Your task to perform on an android device: Go to CNN.com Image 0: 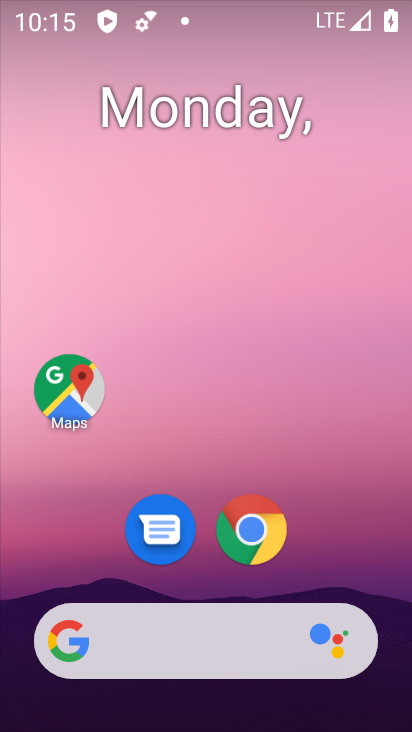
Step 0: drag from (213, 442) to (207, 112)
Your task to perform on an android device: Go to CNN.com Image 1: 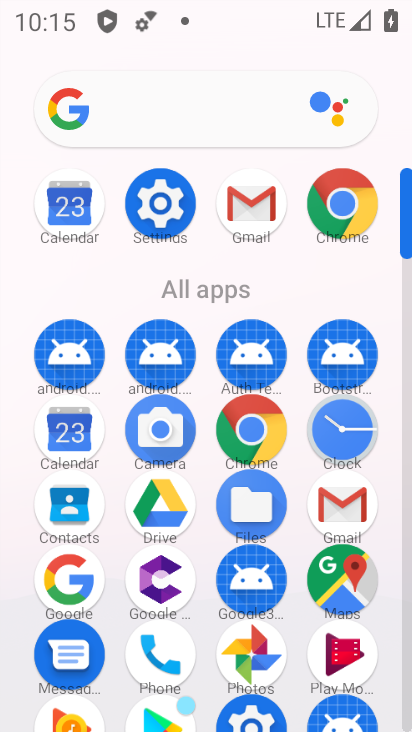
Step 1: click (279, 533)
Your task to perform on an android device: Go to CNN.com Image 2: 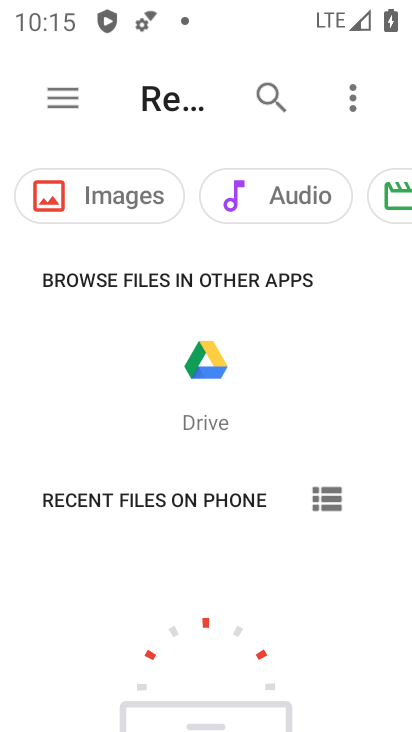
Step 2: press home button
Your task to perform on an android device: Go to CNN.com Image 3: 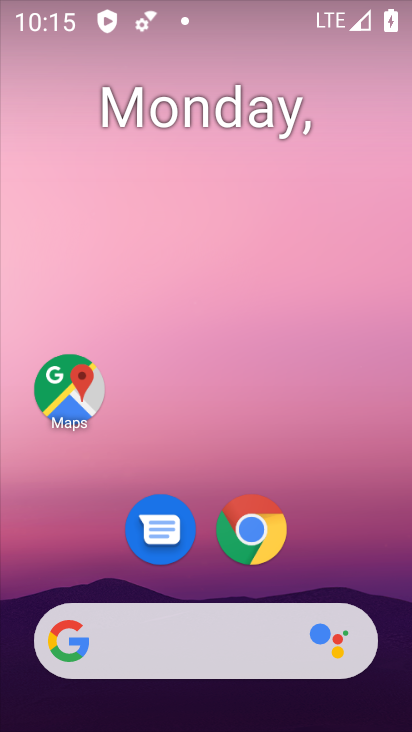
Step 3: drag from (198, 584) to (183, 203)
Your task to perform on an android device: Go to CNN.com Image 4: 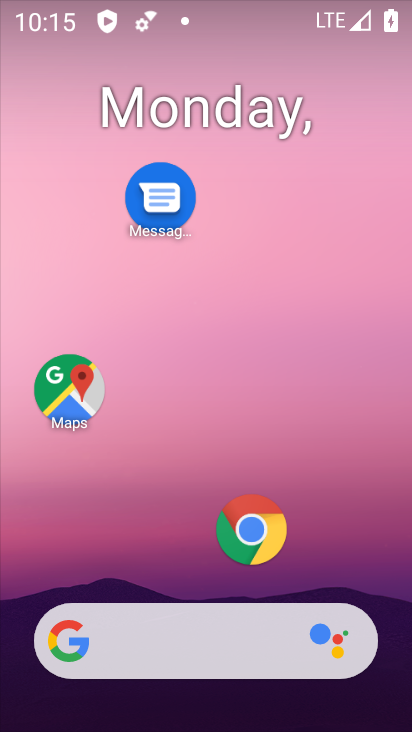
Step 4: drag from (172, 542) to (215, 150)
Your task to perform on an android device: Go to CNN.com Image 5: 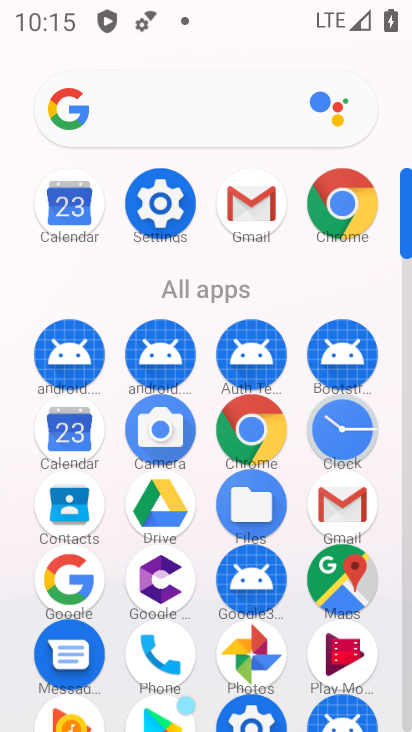
Step 5: click (271, 442)
Your task to perform on an android device: Go to CNN.com Image 6: 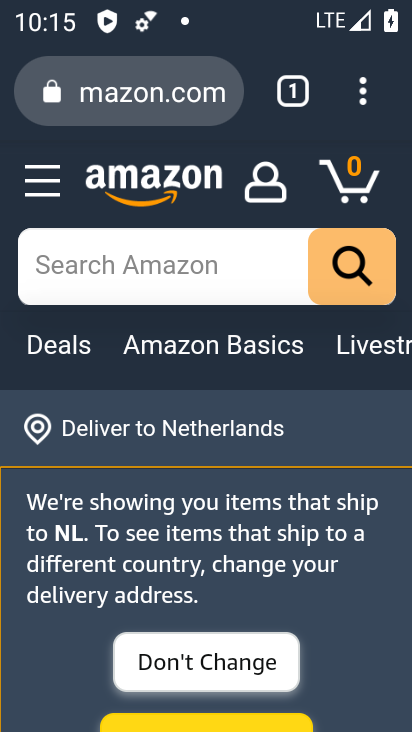
Step 6: click (302, 113)
Your task to perform on an android device: Go to CNN.com Image 7: 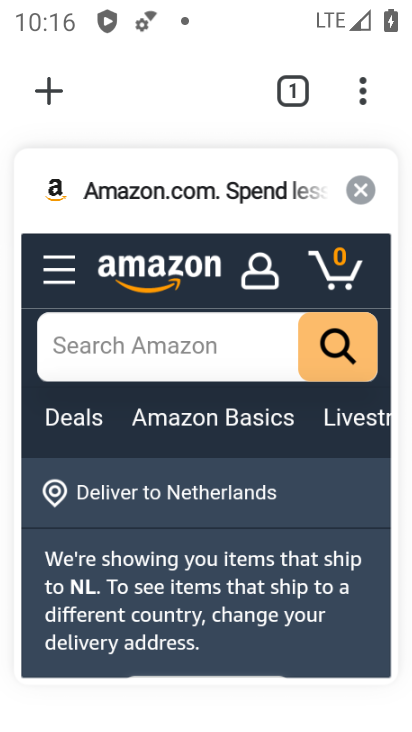
Step 7: click (57, 103)
Your task to perform on an android device: Go to CNN.com Image 8: 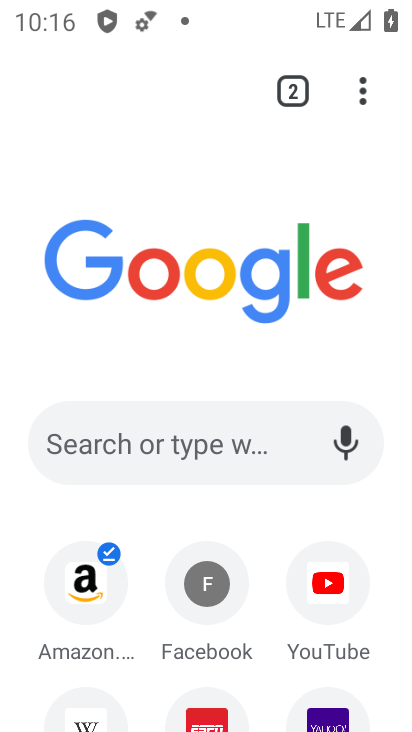
Step 8: click (137, 455)
Your task to perform on an android device: Go to CNN.com Image 9: 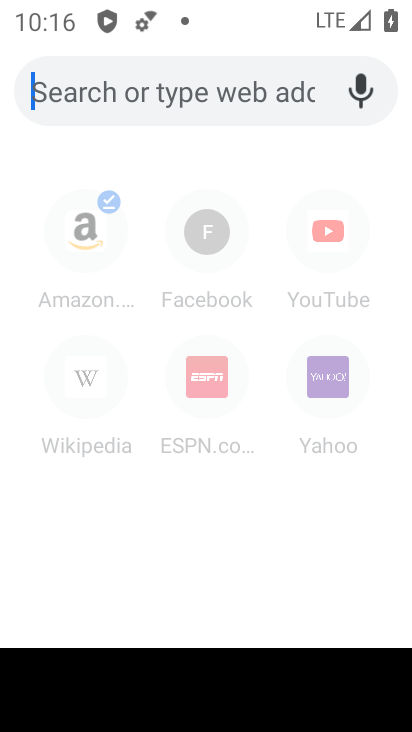
Step 9: type "CNN.com"
Your task to perform on an android device: Go to CNN.com Image 10: 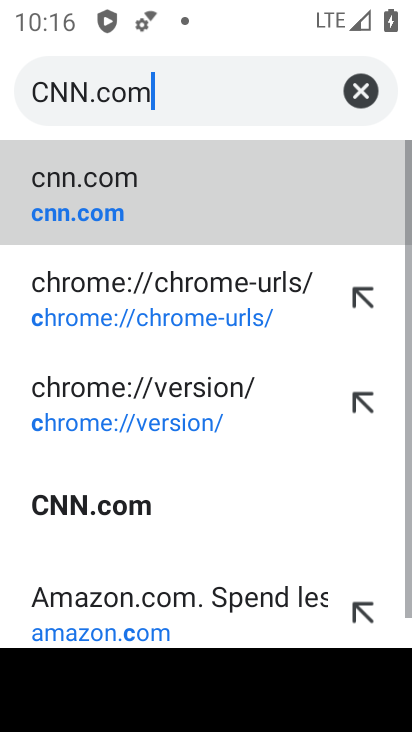
Step 10: type ""
Your task to perform on an android device: Go to CNN.com Image 11: 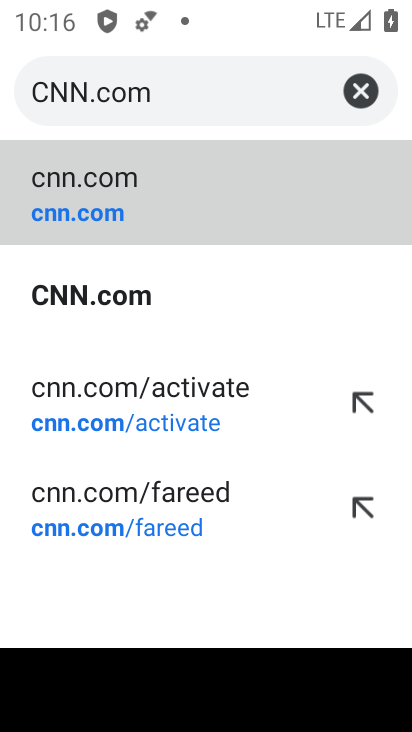
Step 11: click (143, 181)
Your task to perform on an android device: Go to CNN.com Image 12: 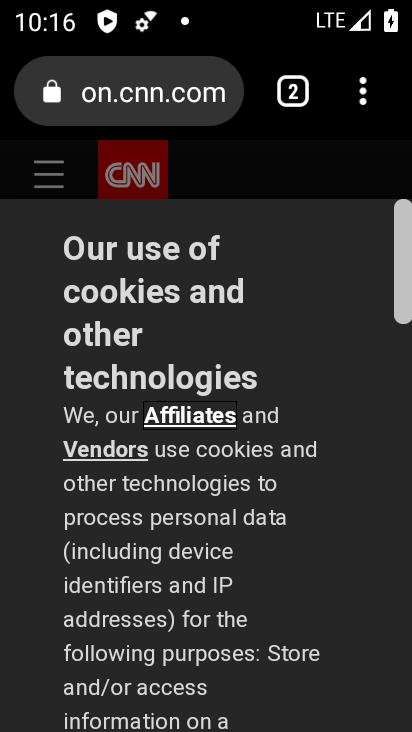
Step 12: drag from (235, 564) to (249, 204)
Your task to perform on an android device: Go to CNN.com Image 13: 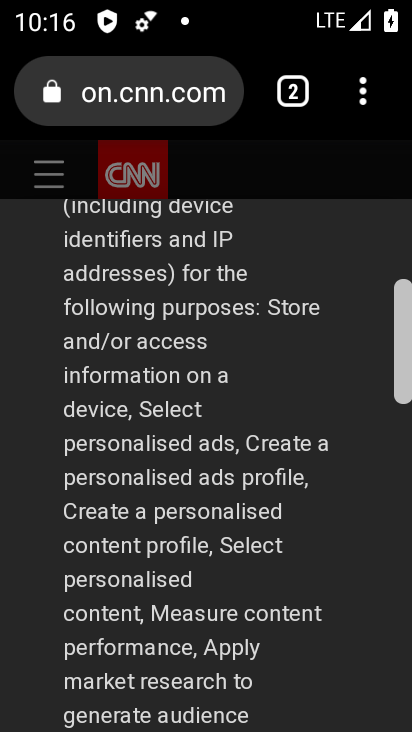
Step 13: drag from (277, 567) to (271, 99)
Your task to perform on an android device: Go to CNN.com Image 14: 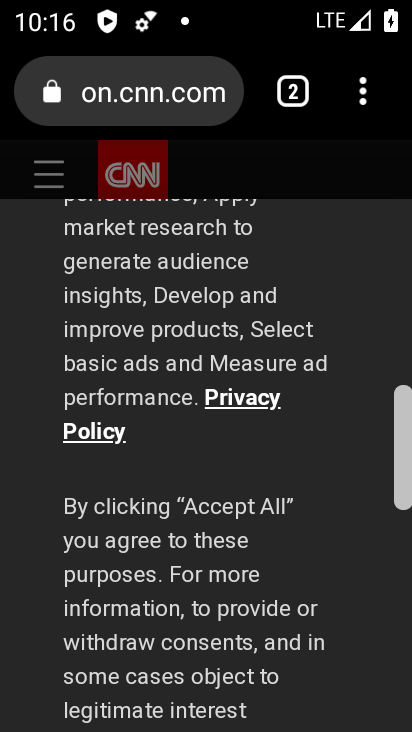
Step 14: drag from (282, 549) to (266, 158)
Your task to perform on an android device: Go to CNN.com Image 15: 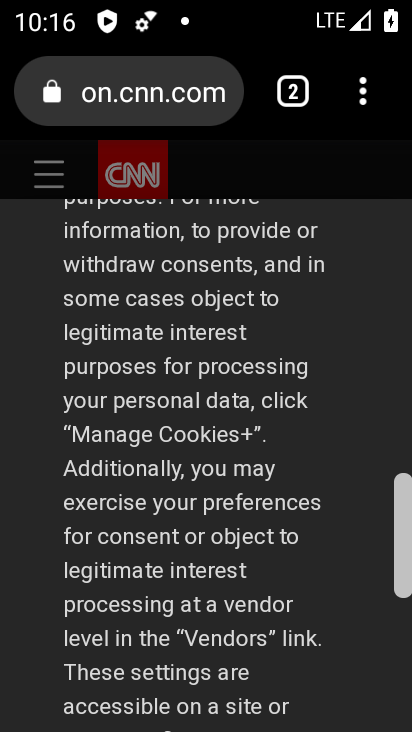
Step 15: drag from (257, 615) to (245, 215)
Your task to perform on an android device: Go to CNN.com Image 16: 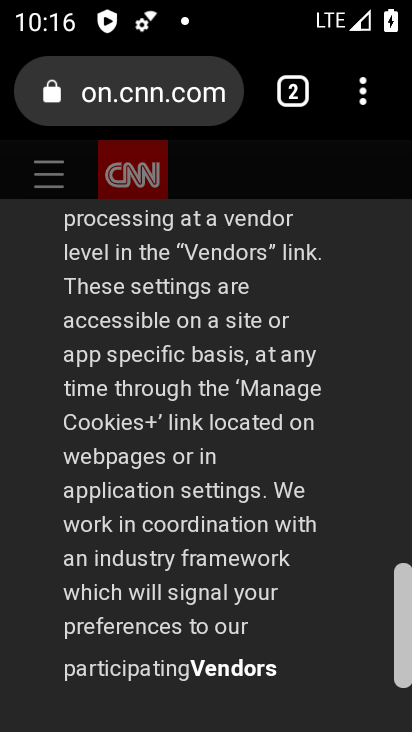
Step 16: drag from (278, 574) to (273, 277)
Your task to perform on an android device: Go to CNN.com Image 17: 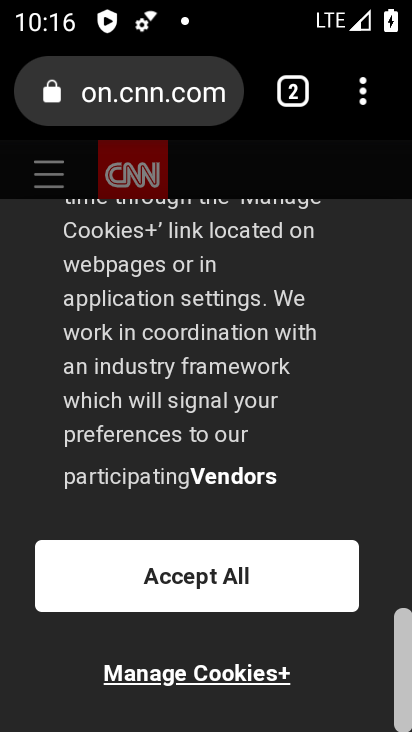
Step 17: click (276, 574)
Your task to perform on an android device: Go to CNN.com Image 18: 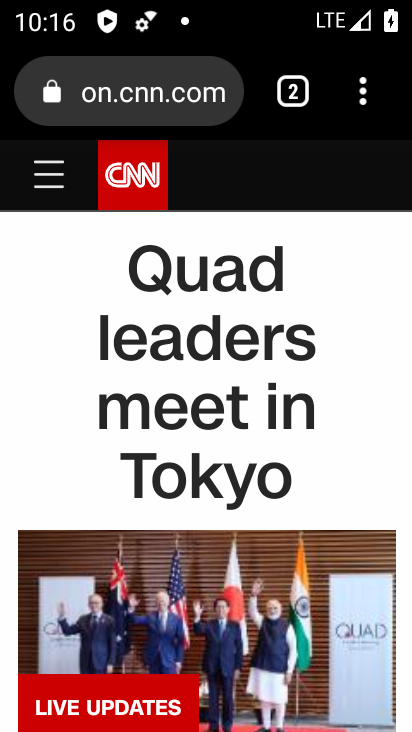
Step 18: task complete